Your task to perform on an android device: What is the average speed of a car? Image 0: 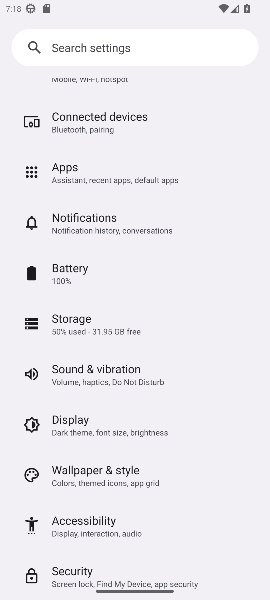
Step 0: press home button
Your task to perform on an android device: What is the average speed of a car? Image 1: 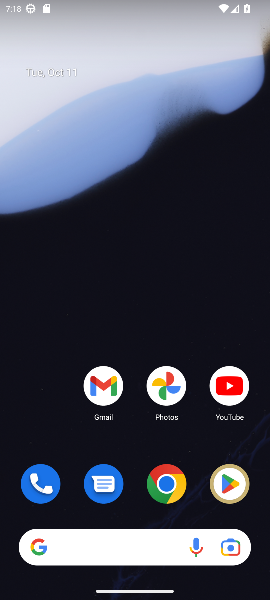
Step 1: click (167, 483)
Your task to perform on an android device: What is the average speed of a car? Image 2: 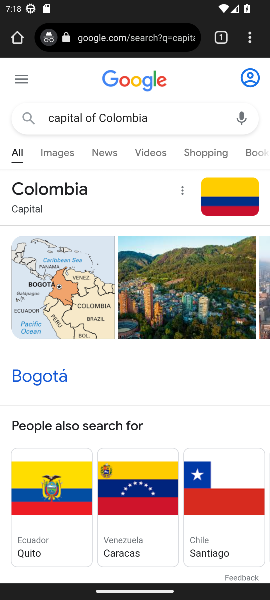
Step 2: click (162, 40)
Your task to perform on an android device: What is the average speed of a car? Image 3: 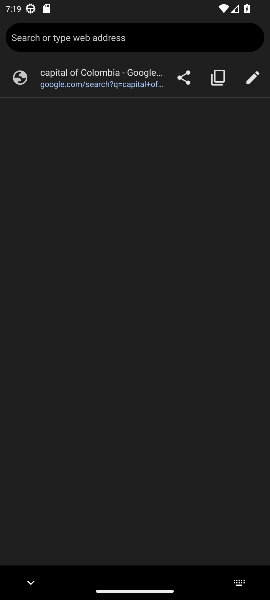
Step 3: type "What is the average speed of a car?"
Your task to perform on an android device: What is the average speed of a car? Image 4: 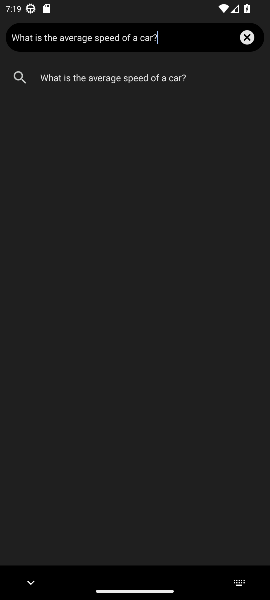
Step 4: click (129, 77)
Your task to perform on an android device: What is the average speed of a car? Image 5: 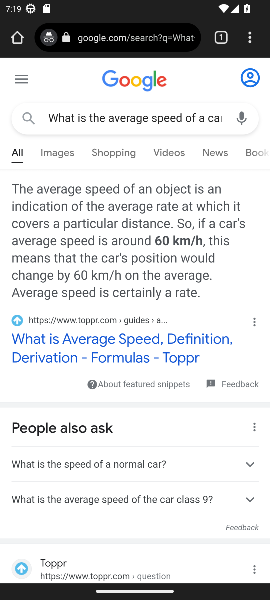
Step 5: task complete